Your task to perform on an android device: What's the weather? Image 0: 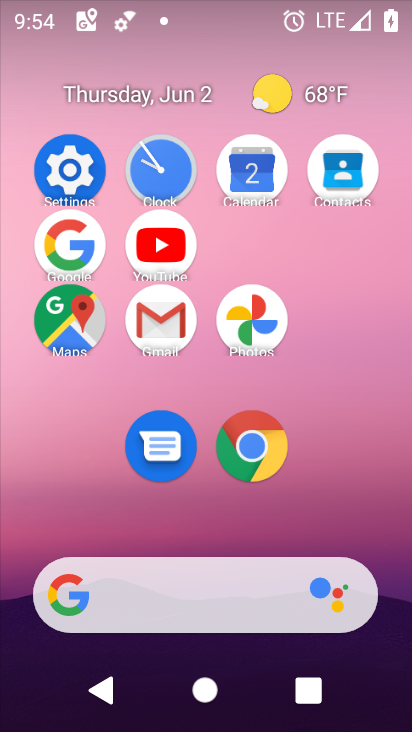
Step 0: click (78, 265)
Your task to perform on an android device: What's the weather? Image 1: 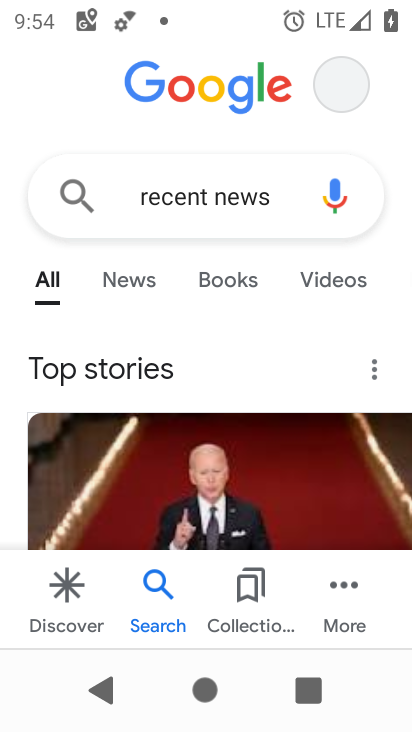
Step 1: click (291, 197)
Your task to perform on an android device: What's the weather? Image 2: 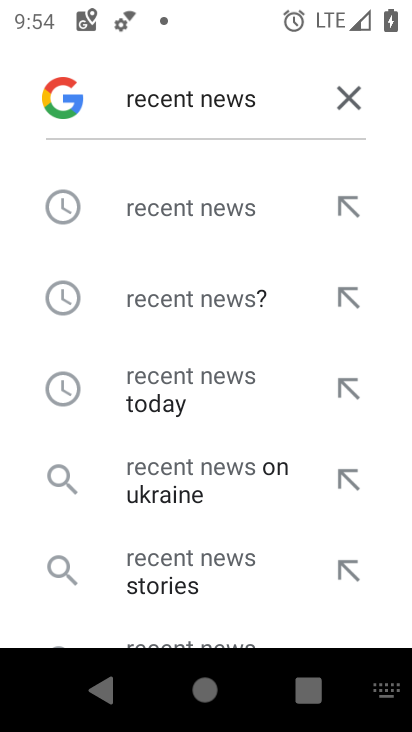
Step 2: click (344, 95)
Your task to perform on an android device: What's the weather? Image 3: 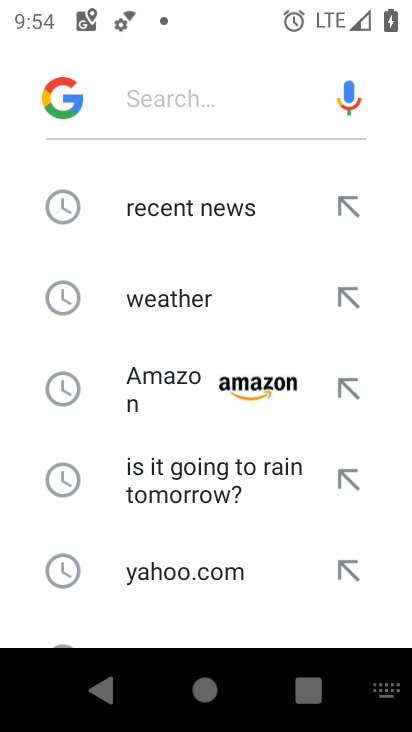
Step 3: click (199, 293)
Your task to perform on an android device: What's the weather? Image 4: 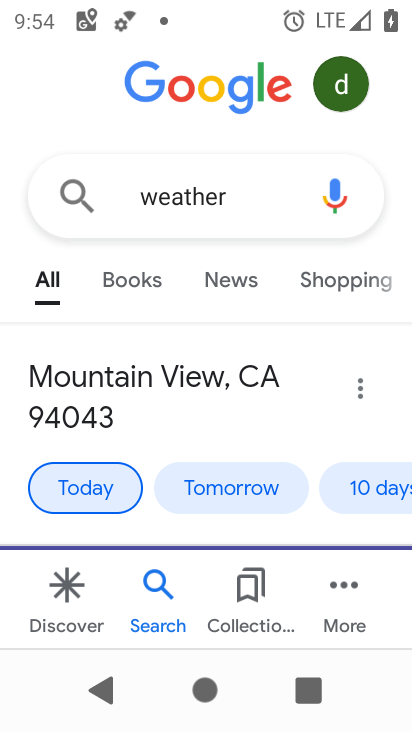
Step 4: task complete